Your task to perform on an android device: Go to location settings Image 0: 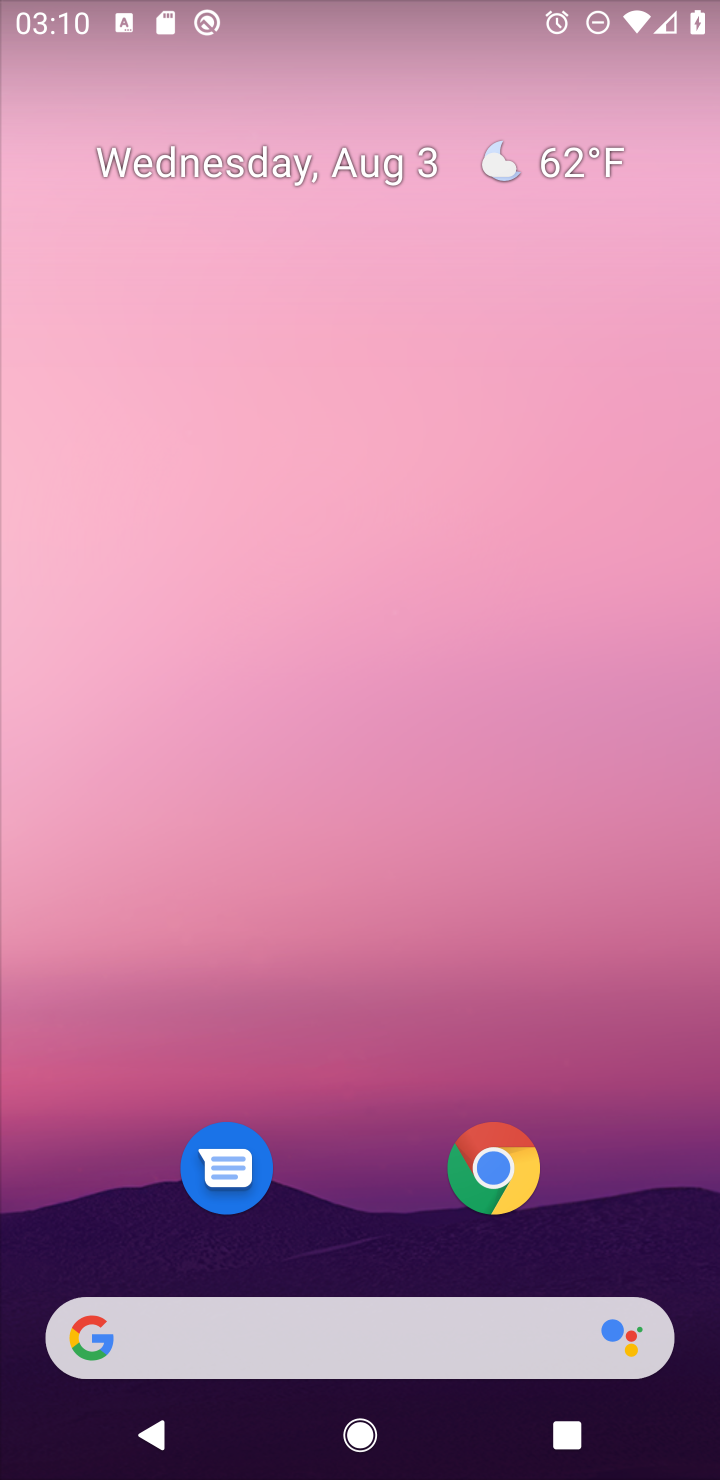
Step 0: drag from (651, 1189) to (513, 144)
Your task to perform on an android device: Go to location settings Image 1: 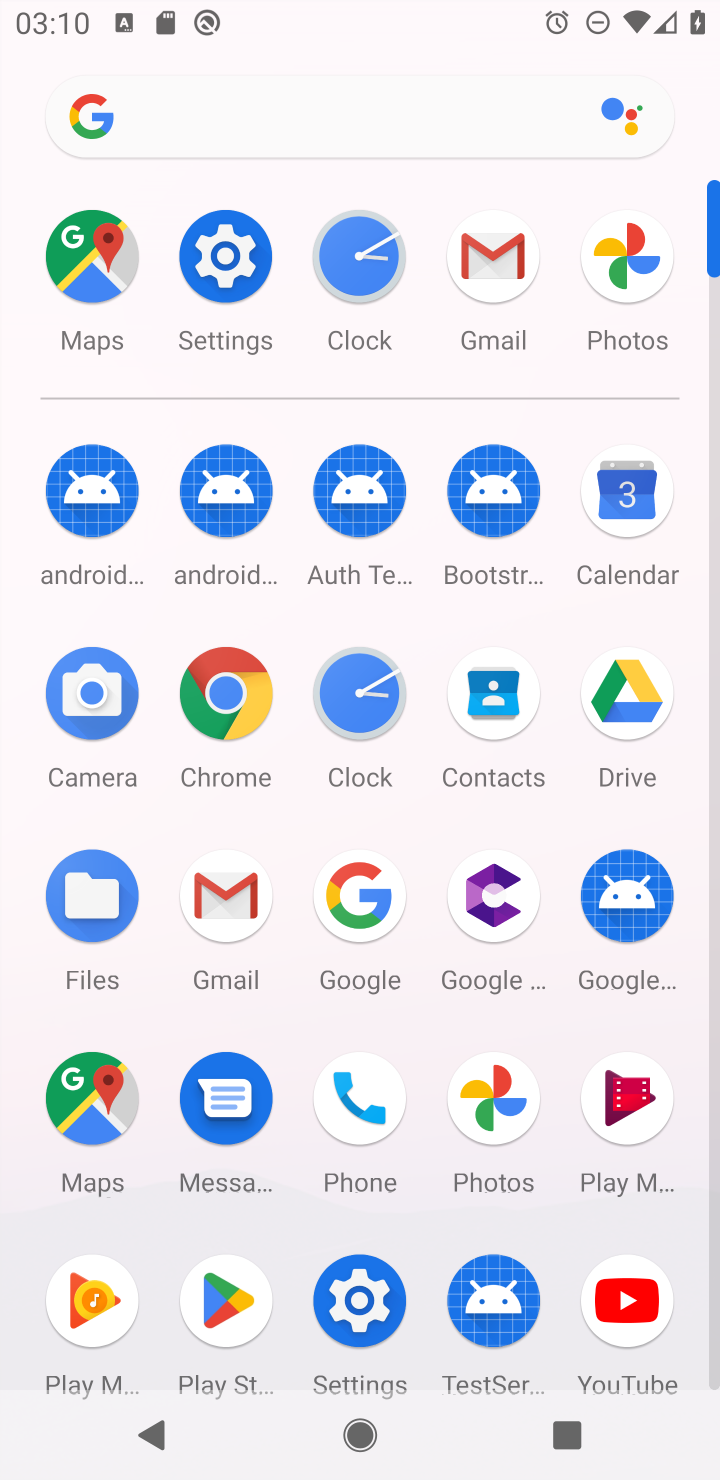
Step 1: click (361, 1301)
Your task to perform on an android device: Go to location settings Image 2: 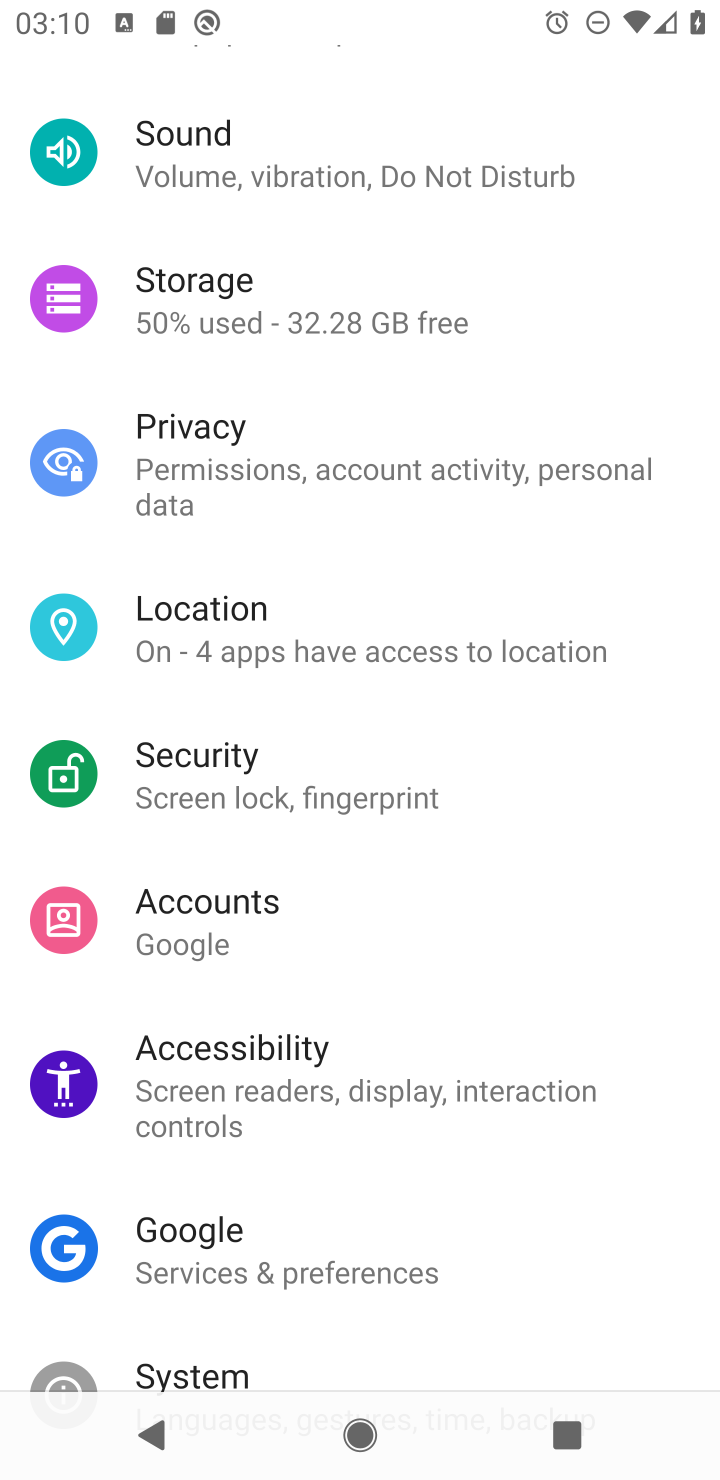
Step 2: click (190, 618)
Your task to perform on an android device: Go to location settings Image 3: 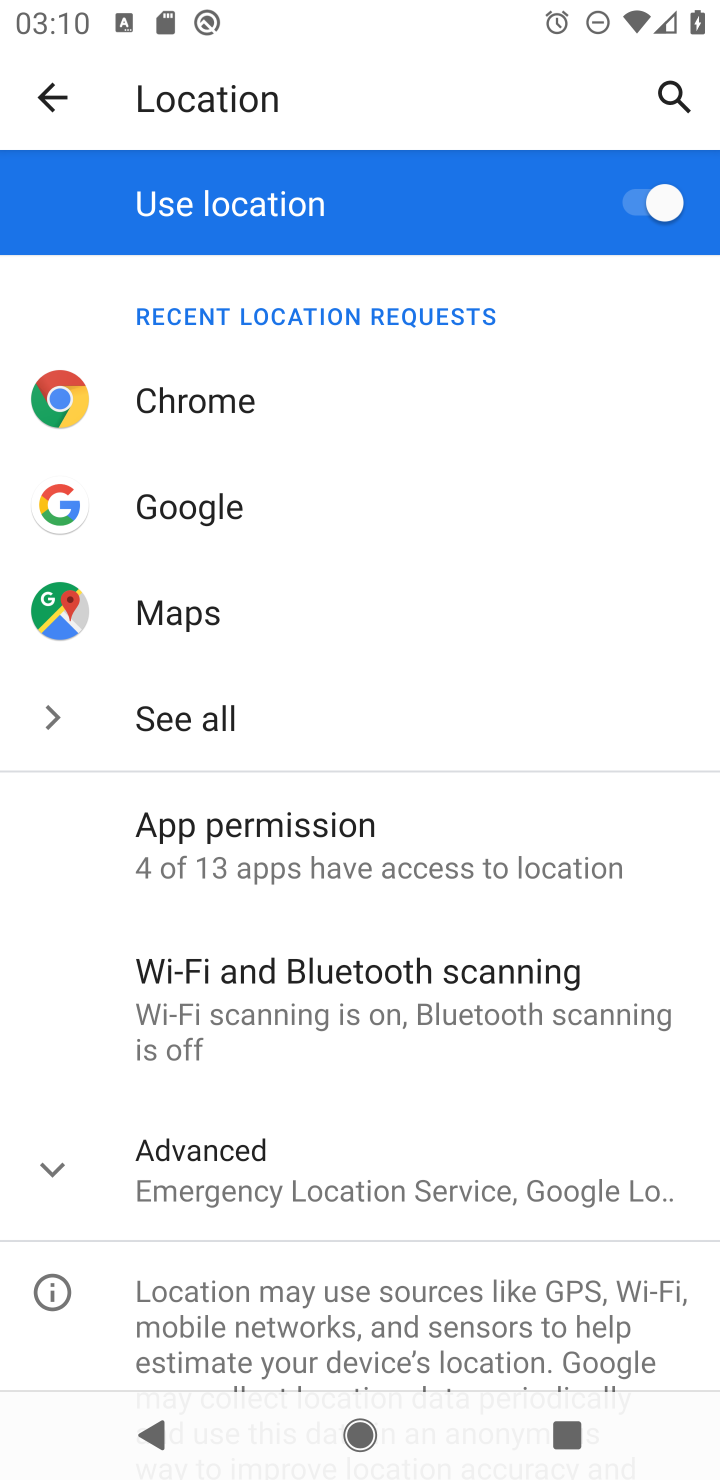
Step 3: click (48, 1159)
Your task to perform on an android device: Go to location settings Image 4: 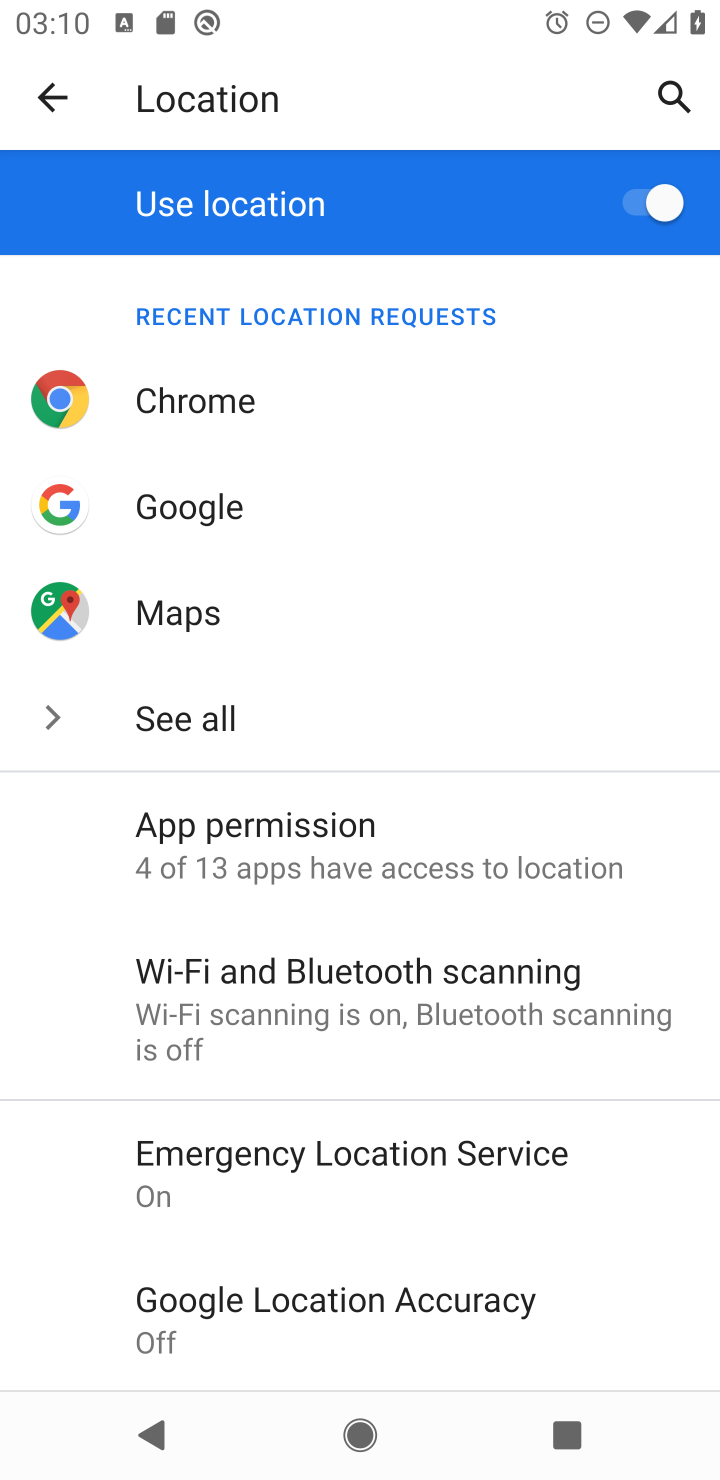
Step 4: task complete